Your task to perform on an android device: Open Android settings Image 0: 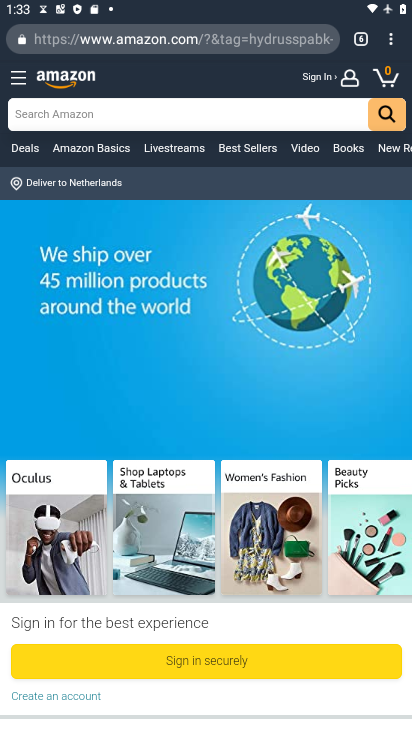
Step 0: press home button
Your task to perform on an android device: Open Android settings Image 1: 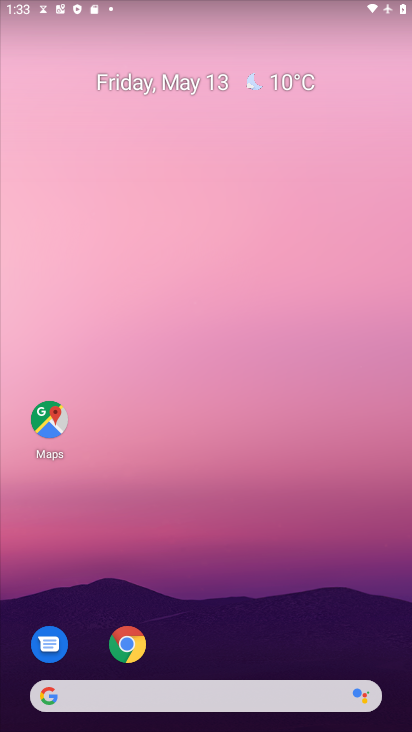
Step 1: drag from (208, 728) to (215, 191)
Your task to perform on an android device: Open Android settings Image 2: 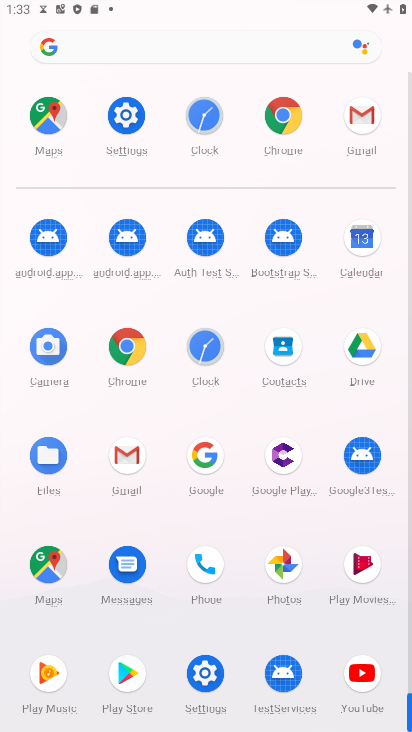
Step 2: click (124, 119)
Your task to perform on an android device: Open Android settings Image 3: 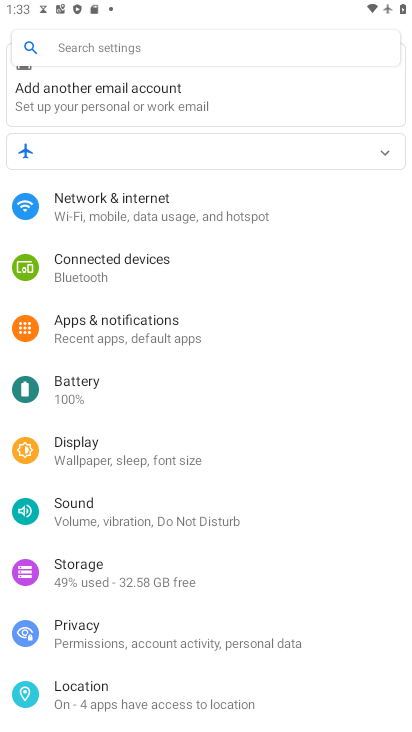
Step 3: task complete